Your task to perform on an android device: empty trash in google photos Image 0: 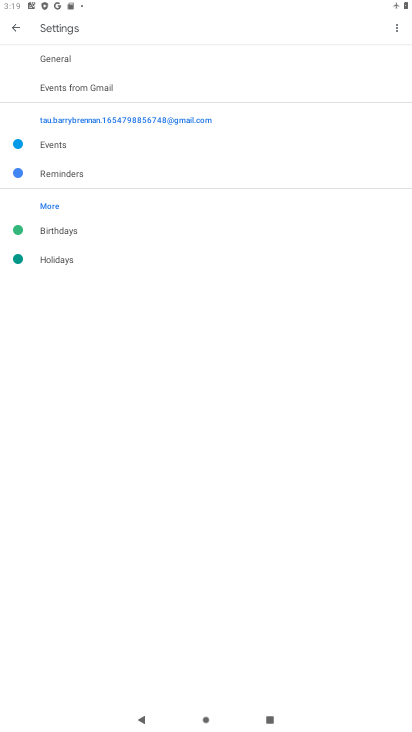
Step 0: press home button
Your task to perform on an android device: empty trash in google photos Image 1: 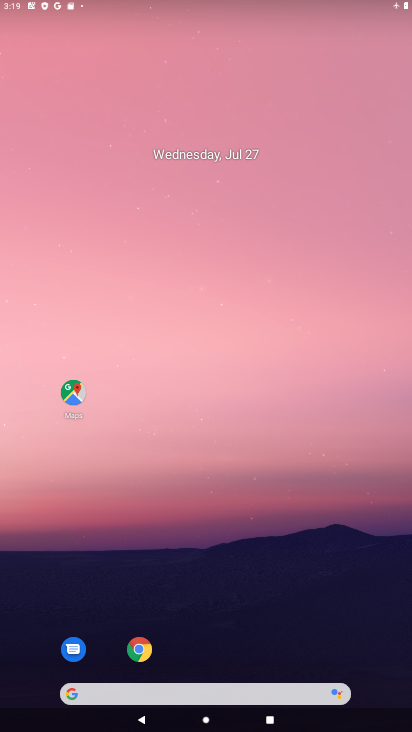
Step 1: drag from (236, 599) to (231, 263)
Your task to perform on an android device: empty trash in google photos Image 2: 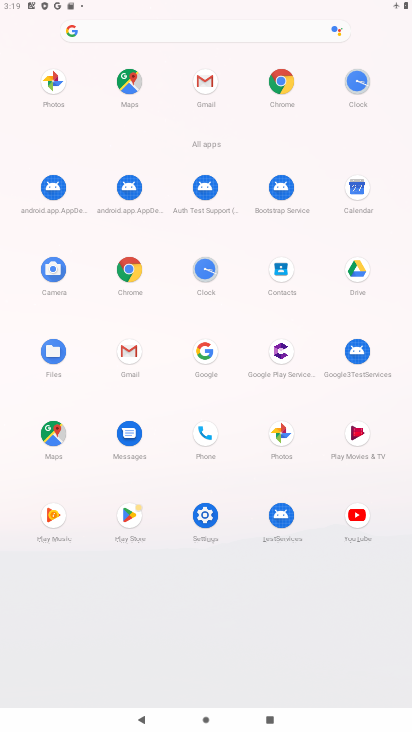
Step 2: click (275, 433)
Your task to perform on an android device: empty trash in google photos Image 3: 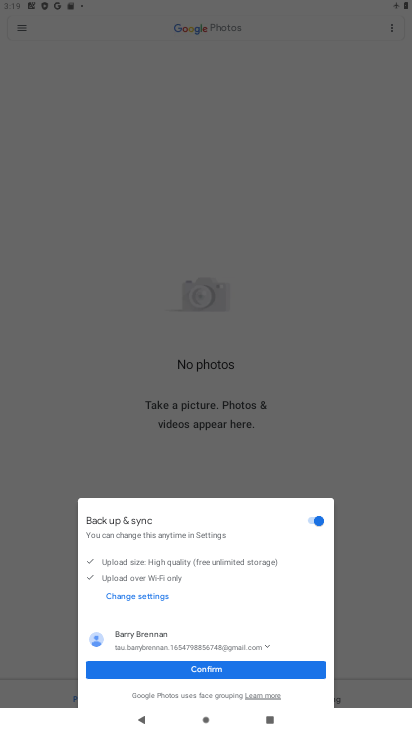
Step 3: task complete